Your task to perform on an android device: check data usage Image 0: 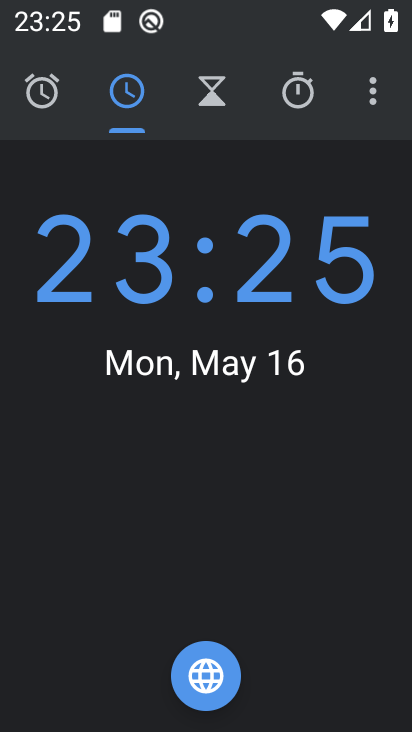
Step 0: press home button
Your task to perform on an android device: check data usage Image 1: 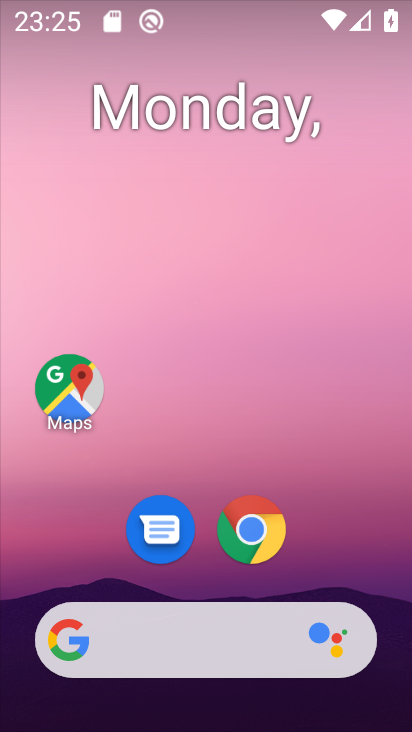
Step 1: drag from (320, 491) to (276, 55)
Your task to perform on an android device: check data usage Image 2: 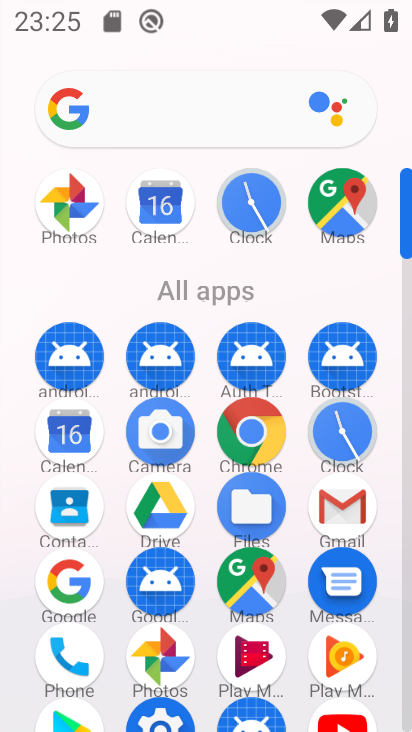
Step 2: click (173, 712)
Your task to perform on an android device: check data usage Image 3: 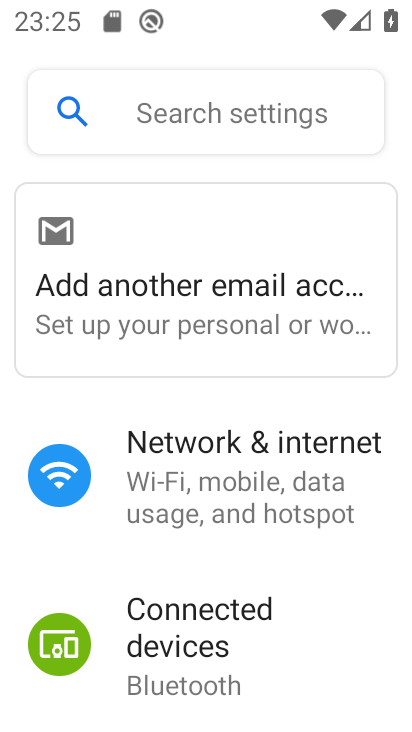
Step 3: click (252, 463)
Your task to perform on an android device: check data usage Image 4: 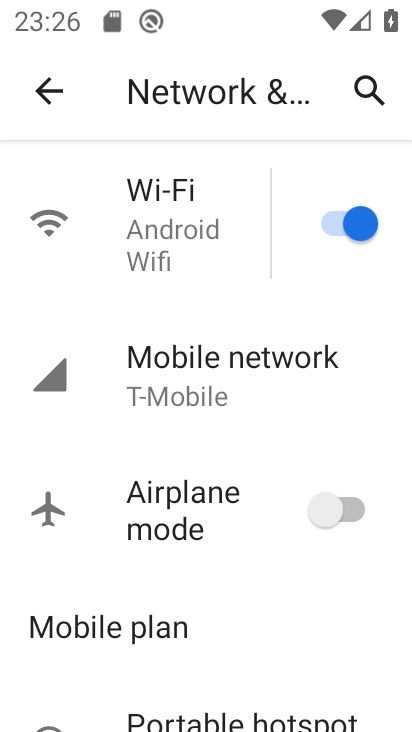
Step 4: click (204, 386)
Your task to perform on an android device: check data usage Image 5: 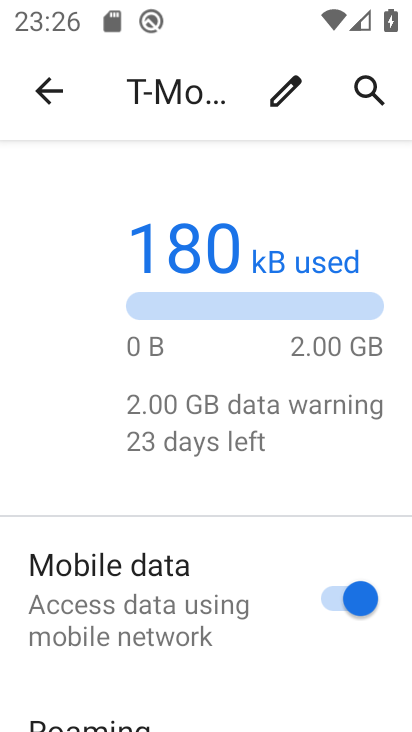
Step 5: drag from (215, 642) to (233, 214)
Your task to perform on an android device: check data usage Image 6: 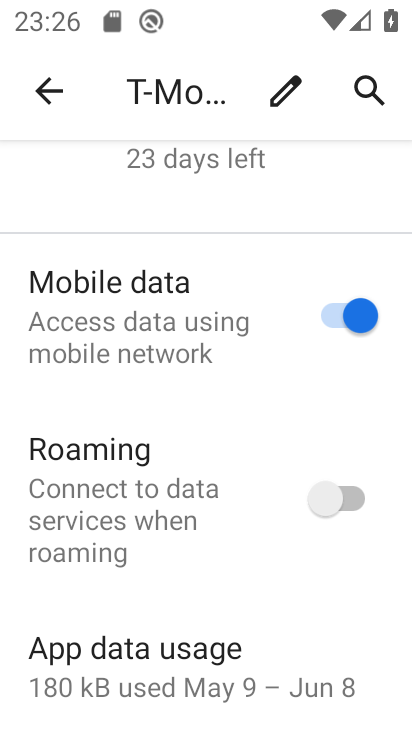
Step 6: click (208, 667)
Your task to perform on an android device: check data usage Image 7: 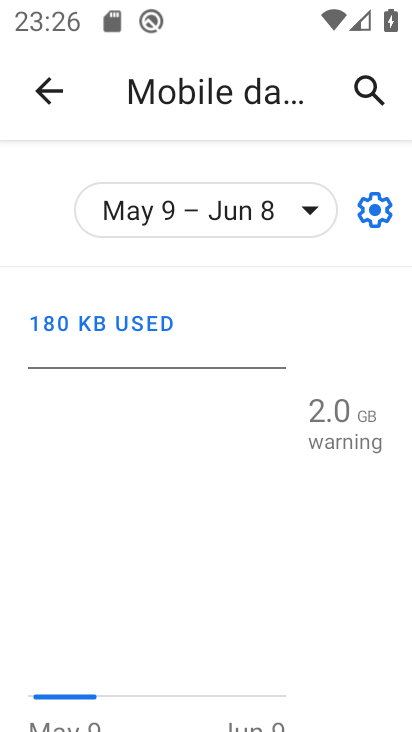
Step 7: task complete